Your task to perform on an android device: turn off wifi Image 0: 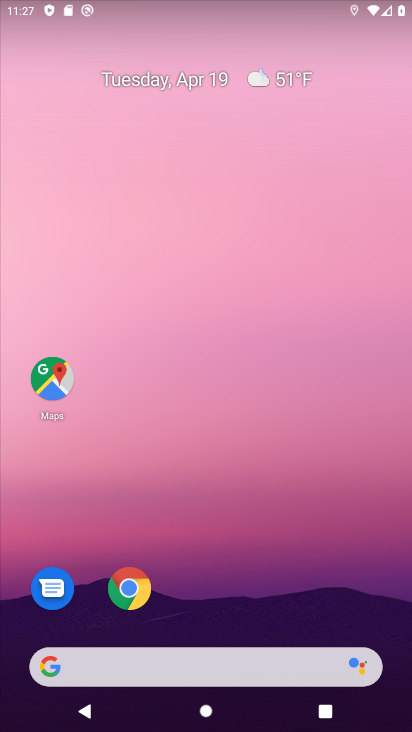
Step 0: click (217, 30)
Your task to perform on an android device: turn off wifi Image 1: 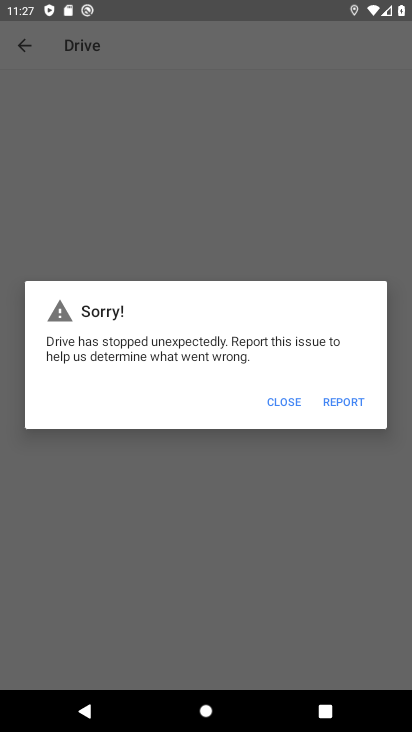
Step 1: press home button
Your task to perform on an android device: turn off wifi Image 2: 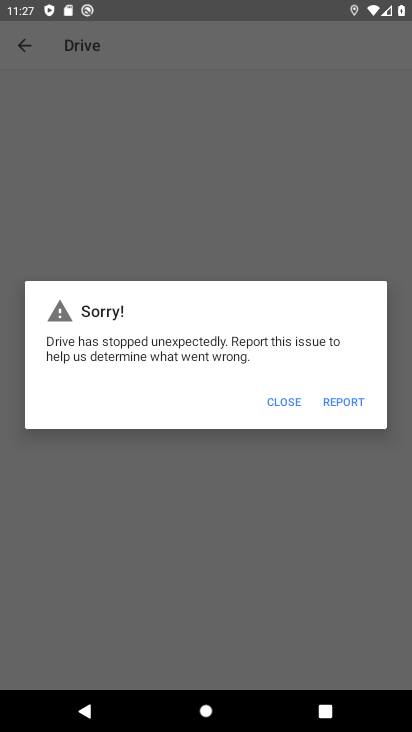
Step 2: press home button
Your task to perform on an android device: turn off wifi Image 3: 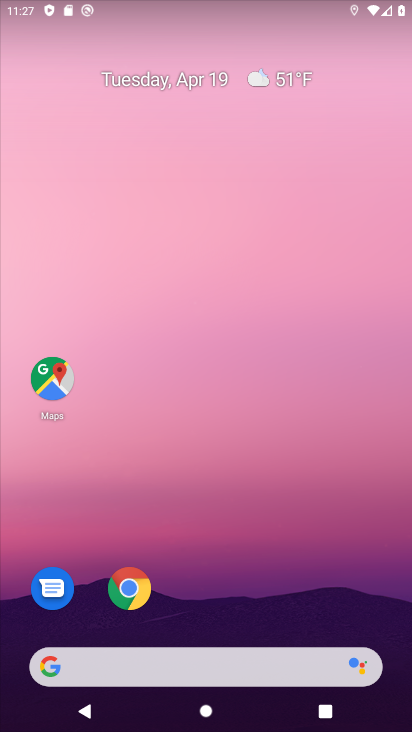
Step 3: drag from (208, 603) to (208, 86)
Your task to perform on an android device: turn off wifi Image 4: 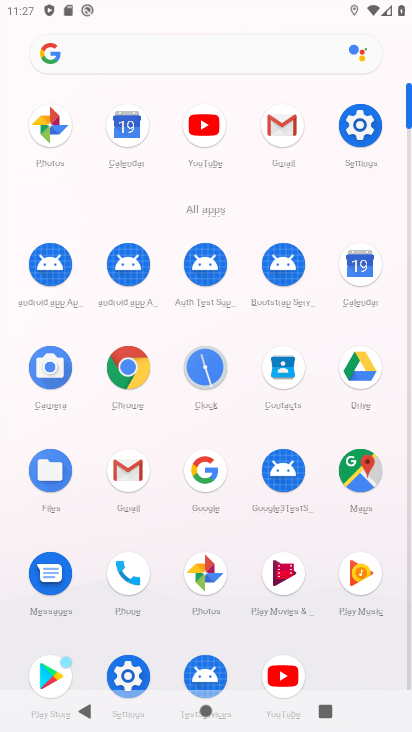
Step 4: drag from (160, 3) to (178, 543)
Your task to perform on an android device: turn off wifi Image 5: 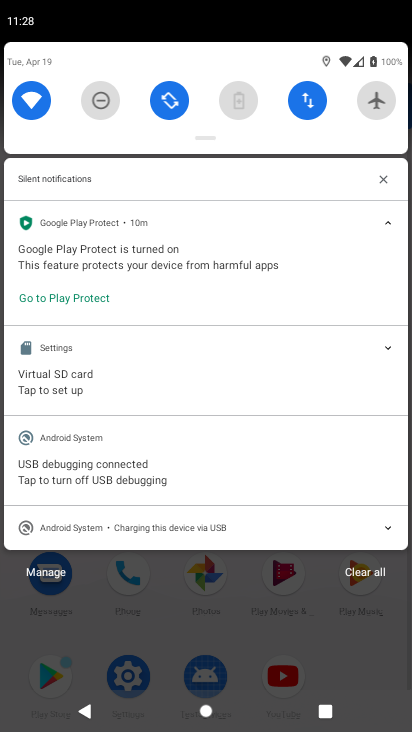
Step 5: click (33, 94)
Your task to perform on an android device: turn off wifi Image 6: 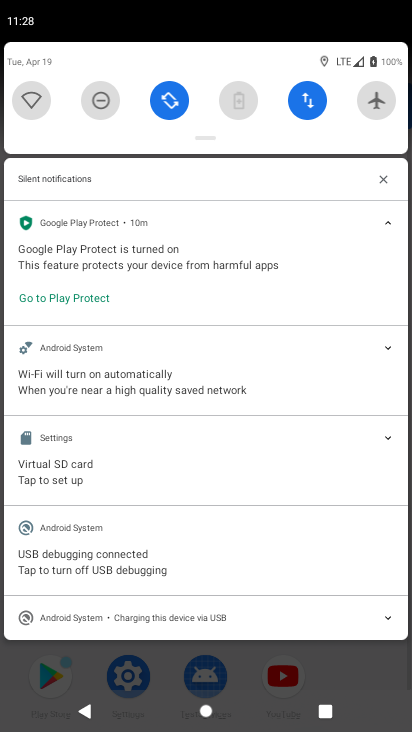
Step 6: task complete